Your task to perform on an android device: Open Google Chrome Image 0: 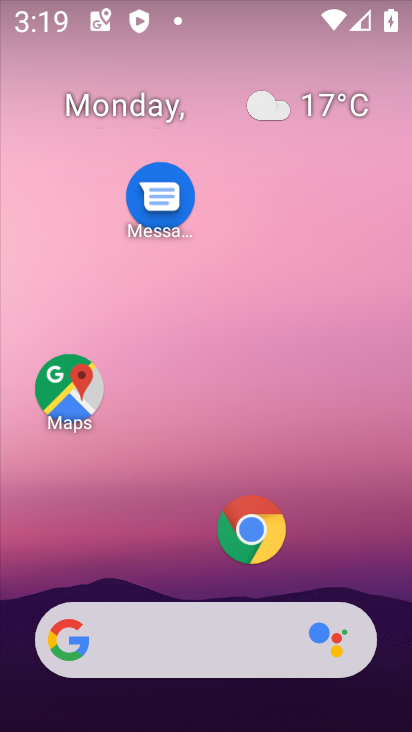
Step 0: click (246, 526)
Your task to perform on an android device: Open Google Chrome Image 1: 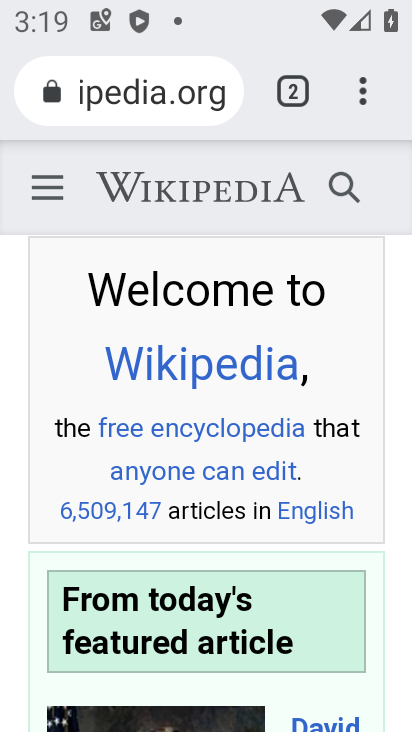
Step 1: click (292, 84)
Your task to perform on an android device: Open Google Chrome Image 2: 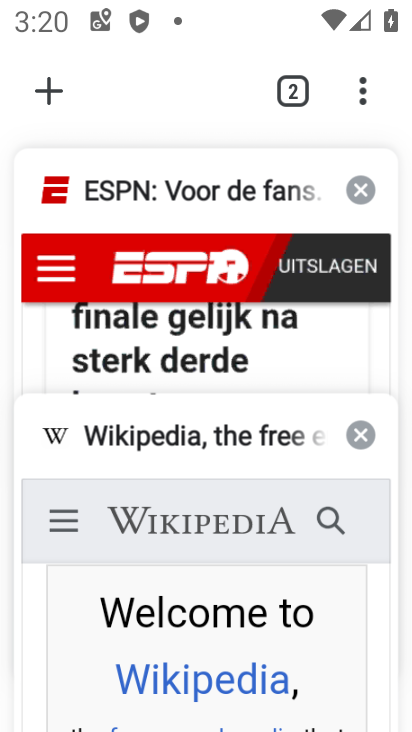
Step 2: click (363, 181)
Your task to perform on an android device: Open Google Chrome Image 3: 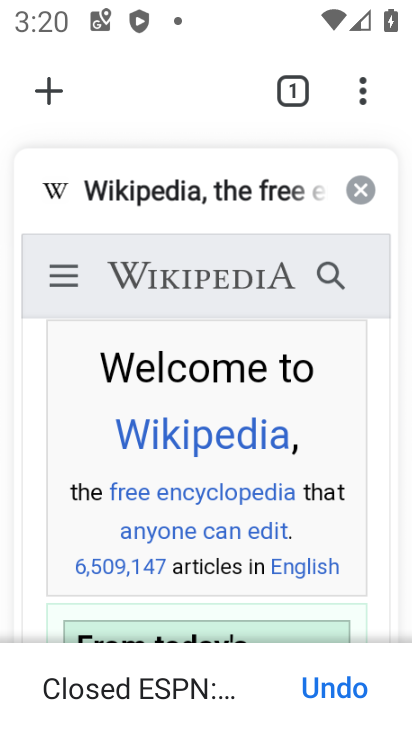
Step 3: click (363, 181)
Your task to perform on an android device: Open Google Chrome Image 4: 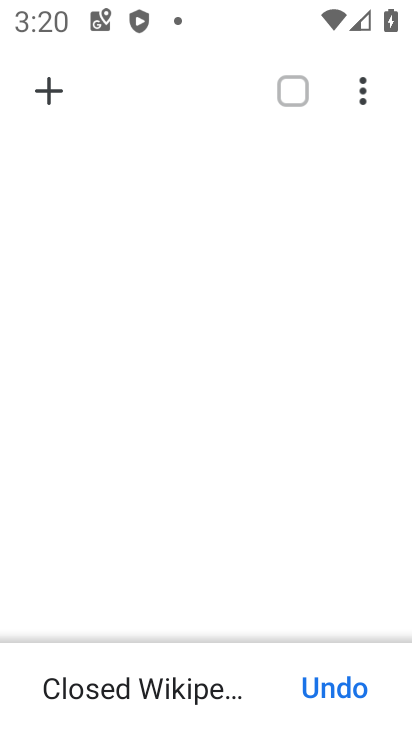
Step 4: click (58, 92)
Your task to perform on an android device: Open Google Chrome Image 5: 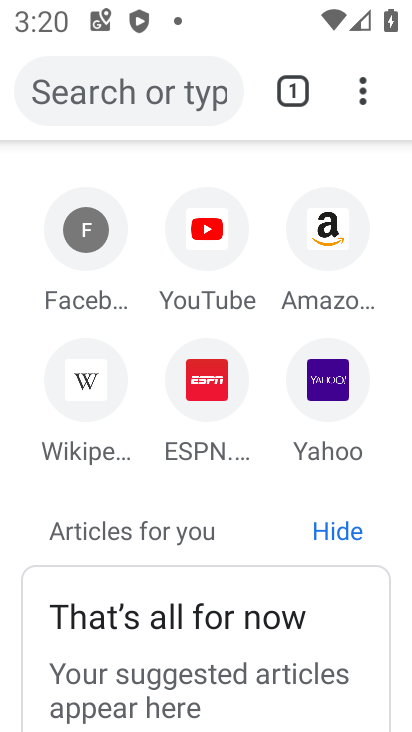
Step 5: task complete